Your task to perform on an android device: What is the recent news? Image 0: 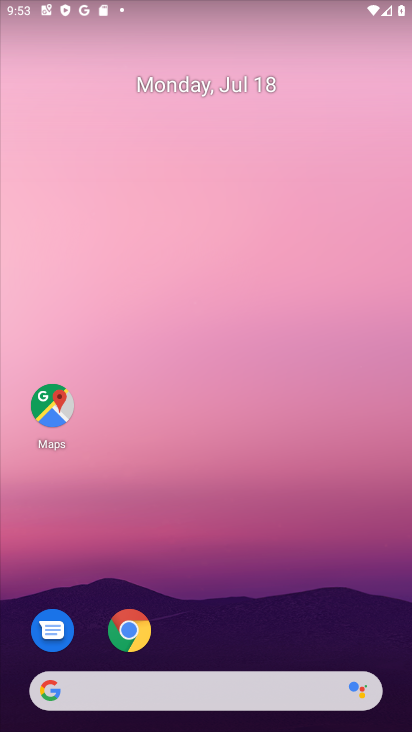
Step 0: drag from (363, 634) to (179, 0)
Your task to perform on an android device: What is the recent news? Image 1: 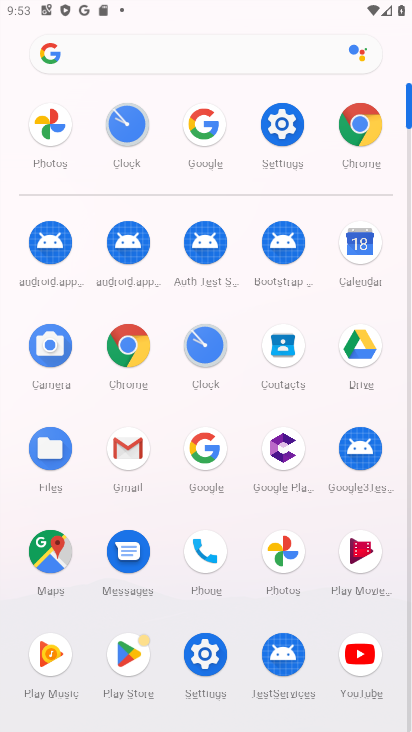
Step 1: click (203, 463)
Your task to perform on an android device: What is the recent news? Image 2: 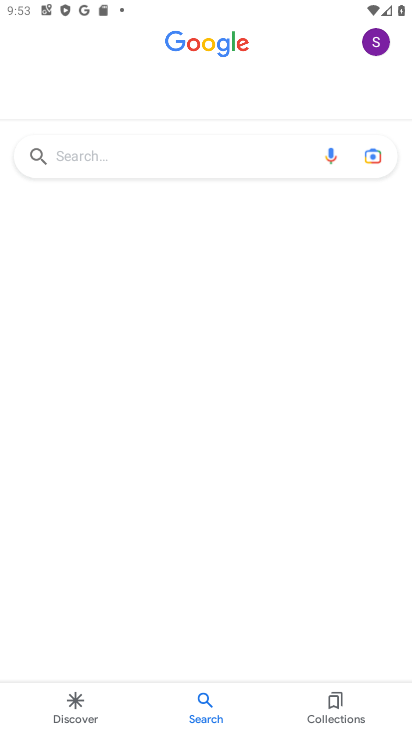
Step 2: click (89, 155)
Your task to perform on an android device: What is the recent news? Image 3: 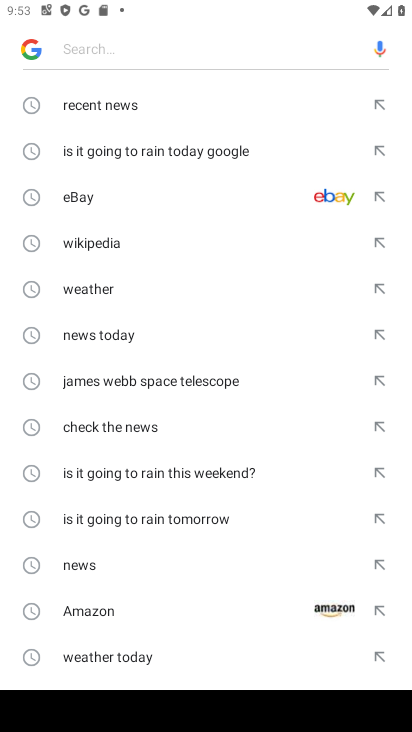
Step 3: click (98, 110)
Your task to perform on an android device: What is the recent news? Image 4: 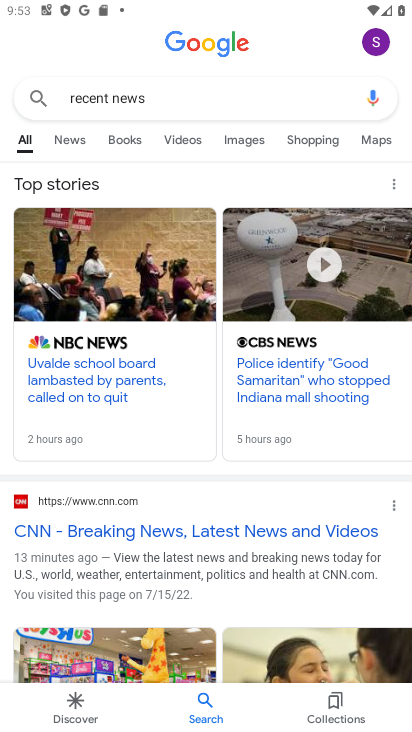
Step 4: task complete